Your task to perform on an android device: Is it going to rain this weekend? Image 0: 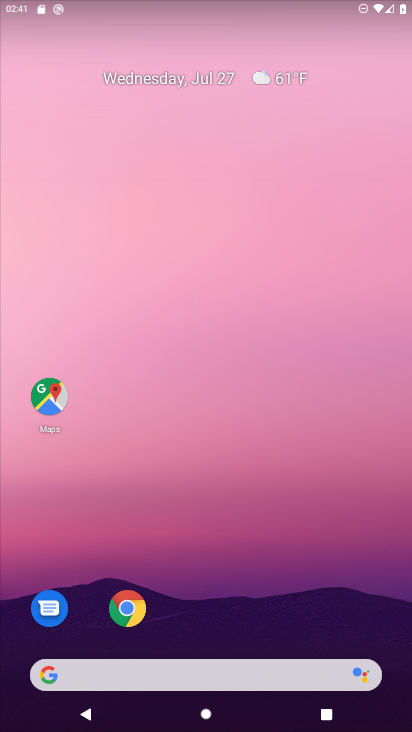
Step 0: drag from (300, 605) to (251, 144)
Your task to perform on an android device: Is it going to rain this weekend? Image 1: 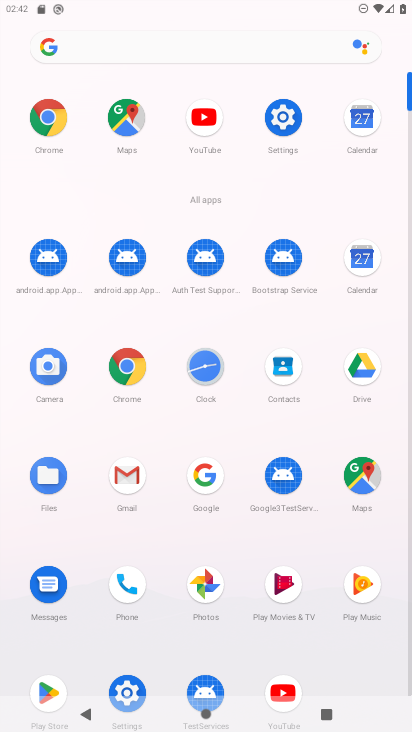
Step 1: click (47, 114)
Your task to perform on an android device: Is it going to rain this weekend? Image 2: 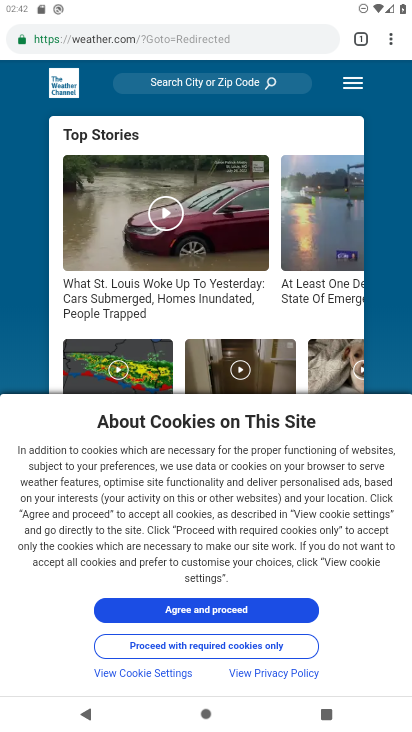
Step 2: click (257, 30)
Your task to perform on an android device: Is it going to rain this weekend? Image 3: 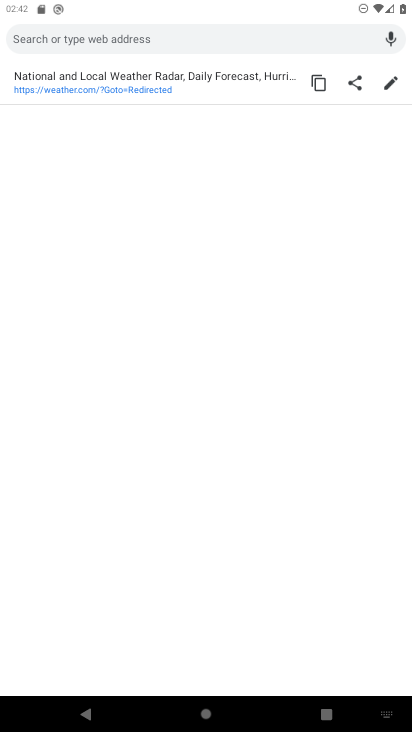
Step 3: type "Is it going to rain this weekend?"
Your task to perform on an android device: Is it going to rain this weekend? Image 4: 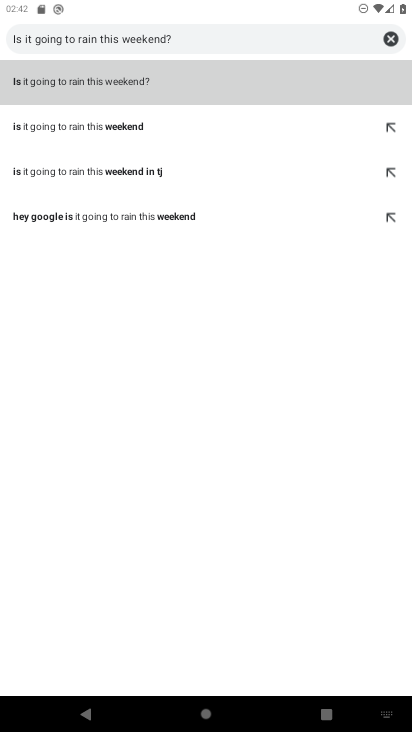
Step 4: click (143, 84)
Your task to perform on an android device: Is it going to rain this weekend? Image 5: 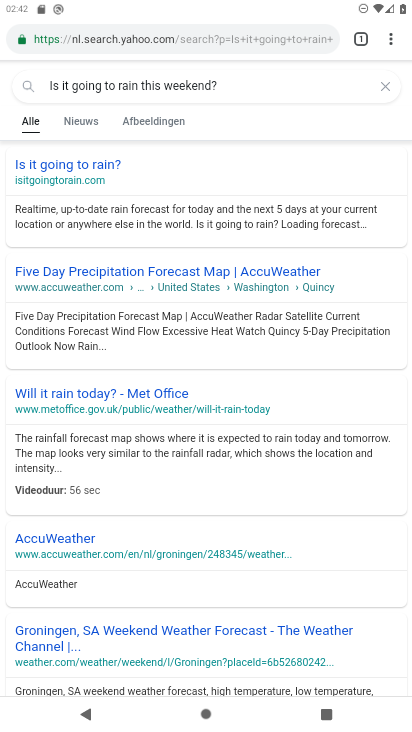
Step 5: click (71, 171)
Your task to perform on an android device: Is it going to rain this weekend? Image 6: 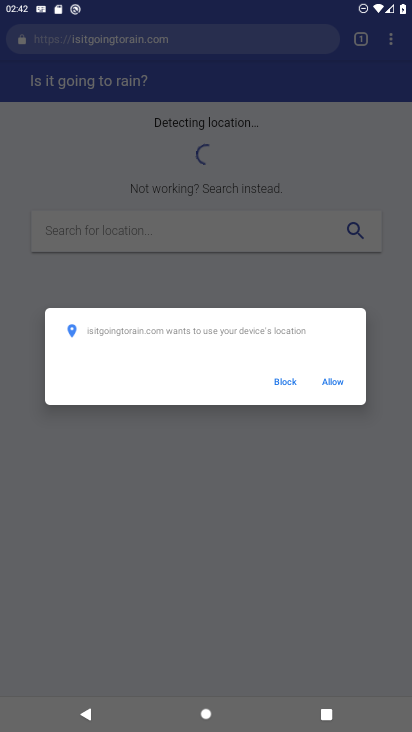
Step 6: click (332, 381)
Your task to perform on an android device: Is it going to rain this weekend? Image 7: 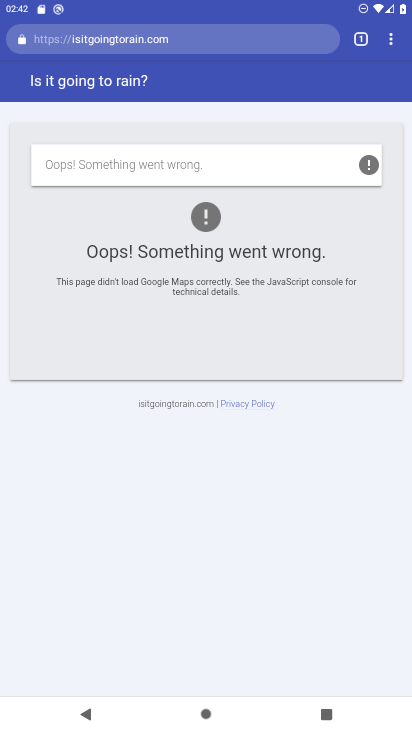
Step 7: task complete